Your task to perform on an android device: Open the stopwatch Image 0: 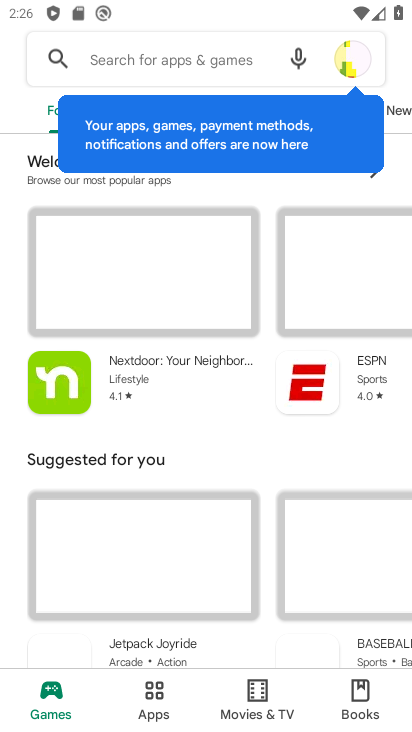
Step 0: press back button
Your task to perform on an android device: Open the stopwatch Image 1: 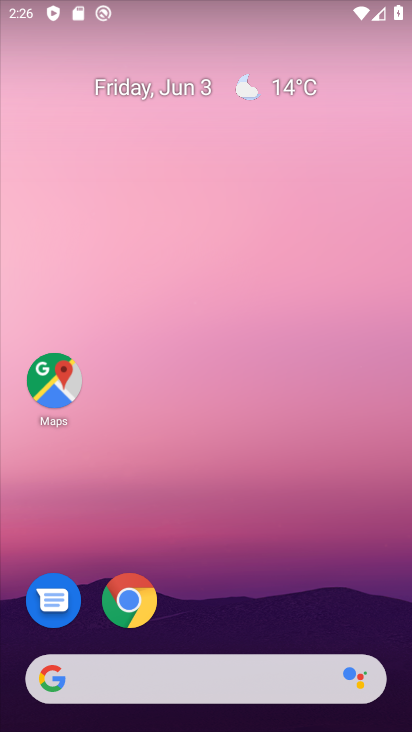
Step 1: drag from (195, 61) to (185, 0)
Your task to perform on an android device: Open the stopwatch Image 2: 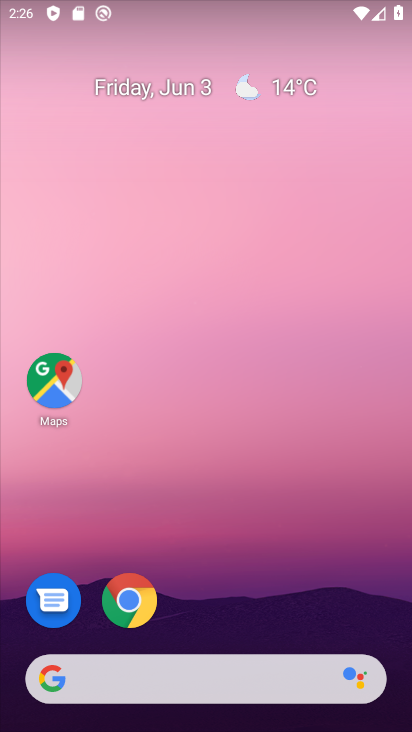
Step 2: drag from (229, 138) to (226, 70)
Your task to perform on an android device: Open the stopwatch Image 3: 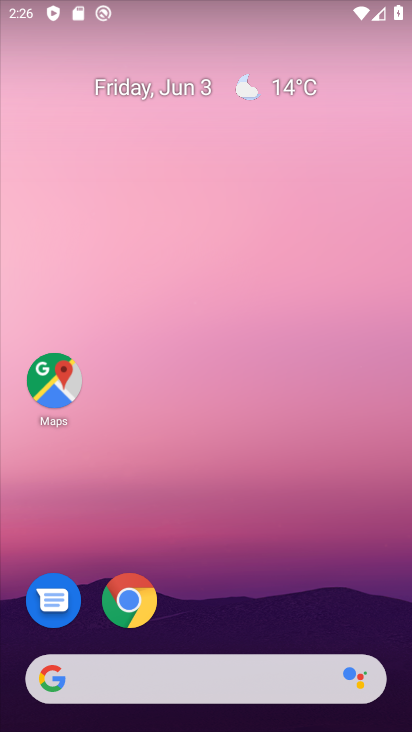
Step 3: drag from (310, 570) to (265, 14)
Your task to perform on an android device: Open the stopwatch Image 4: 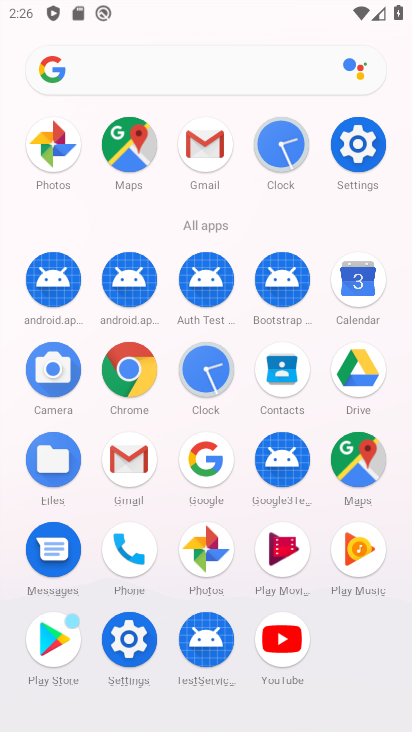
Step 4: click (205, 366)
Your task to perform on an android device: Open the stopwatch Image 5: 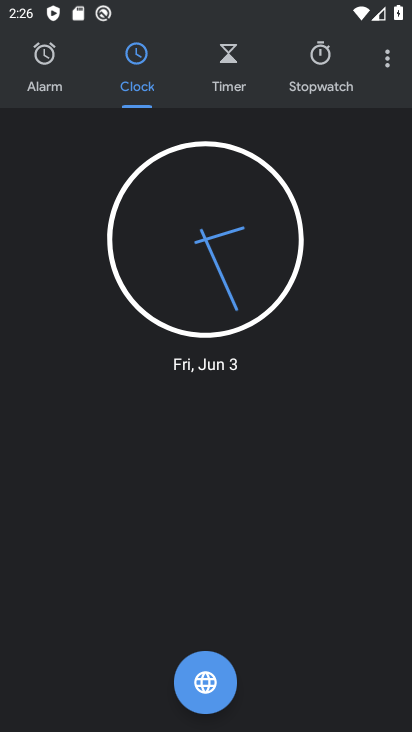
Step 5: click (323, 50)
Your task to perform on an android device: Open the stopwatch Image 6: 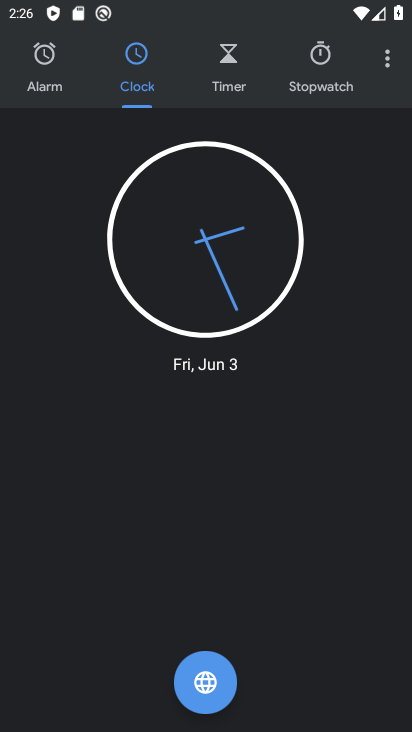
Step 6: click (319, 64)
Your task to perform on an android device: Open the stopwatch Image 7: 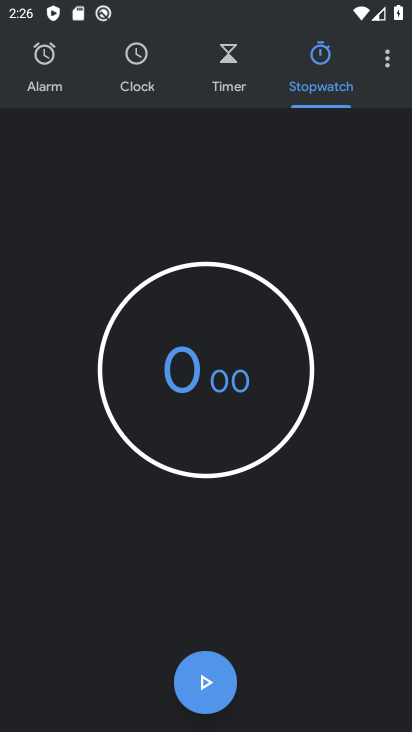
Step 7: click (202, 674)
Your task to perform on an android device: Open the stopwatch Image 8: 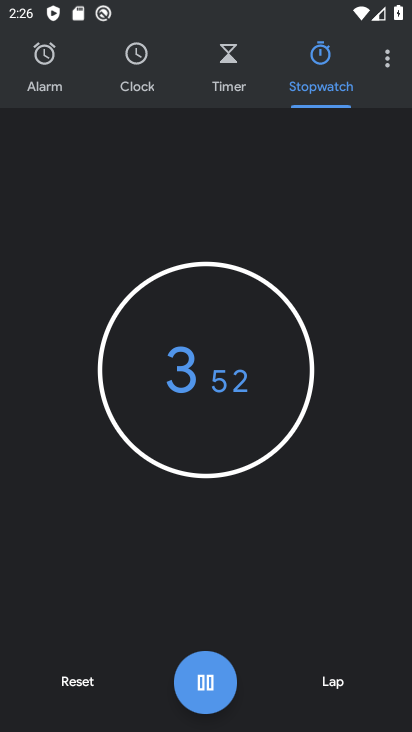
Step 8: click (203, 674)
Your task to perform on an android device: Open the stopwatch Image 9: 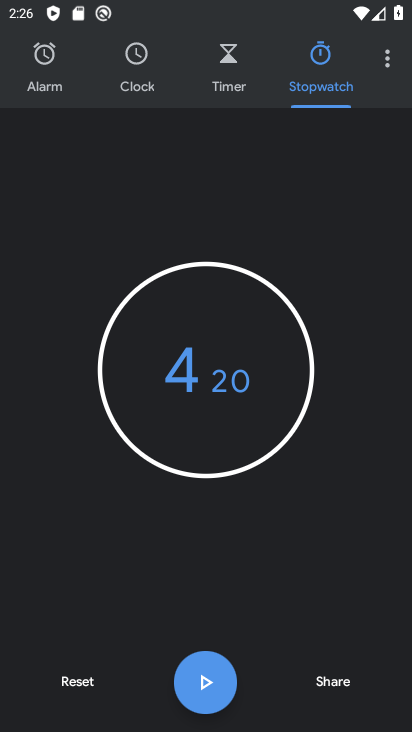
Step 9: click (203, 674)
Your task to perform on an android device: Open the stopwatch Image 10: 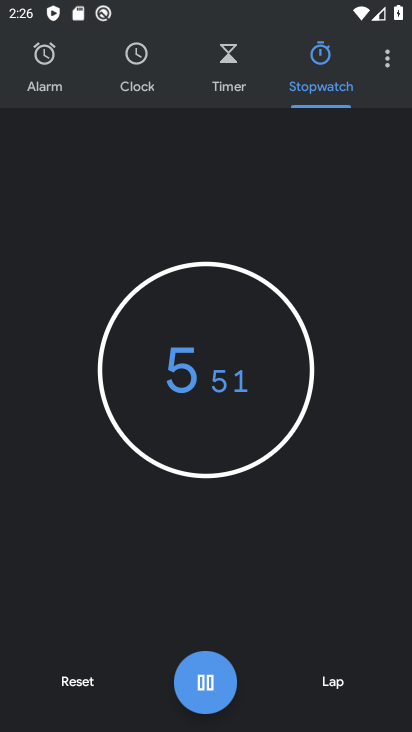
Step 10: task complete